Your task to perform on an android device: visit the assistant section in the google photos Image 0: 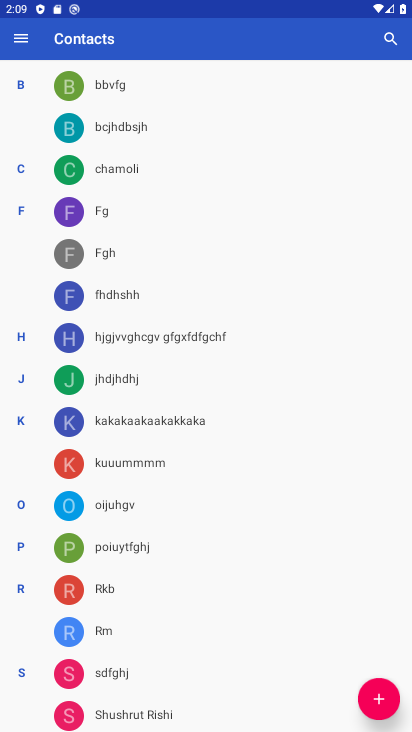
Step 0: press home button
Your task to perform on an android device: visit the assistant section in the google photos Image 1: 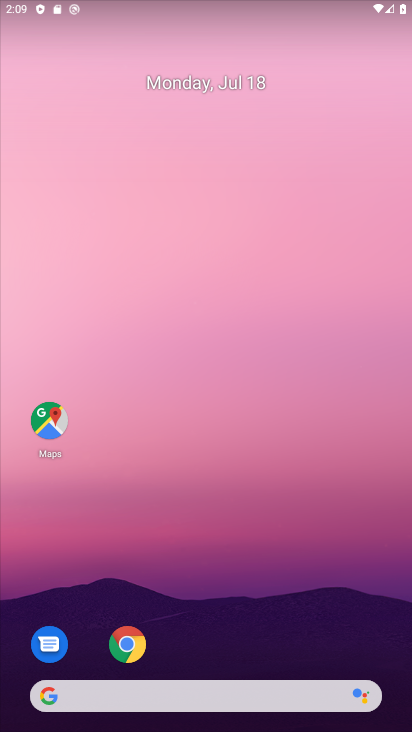
Step 1: drag from (329, 643) to (229, 102)
Your task to perform on an android device: visit the assistant section in the google photos Image 2: 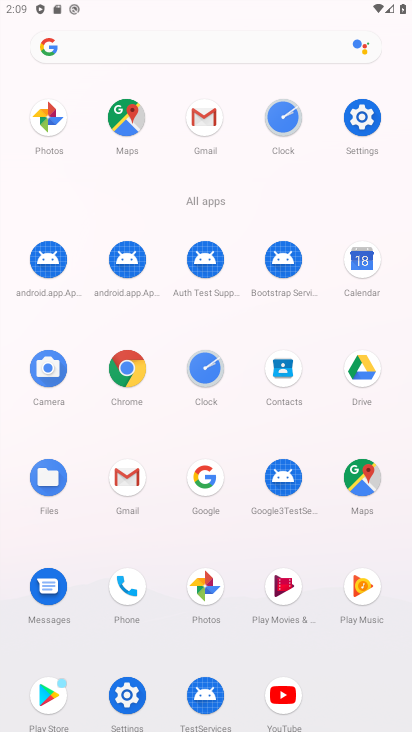
Step 2: click (47, 106)
Your task to perform on an android device: visit the assistant section in the google photos Image 3: 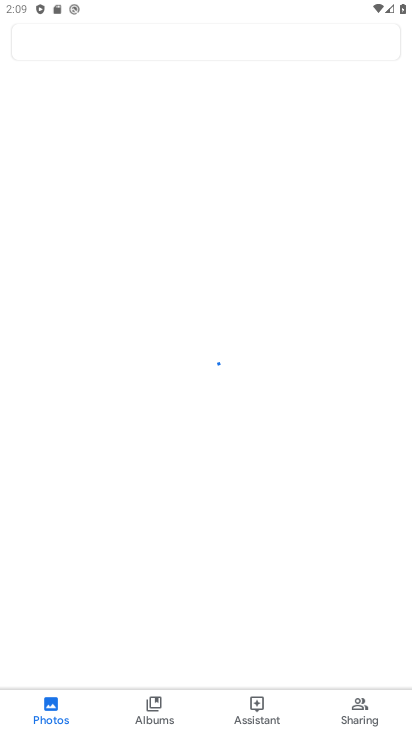
Step 3: click (260, 707)
Your task to perform on an android device: visit the assistant section in the google photos Image 4: 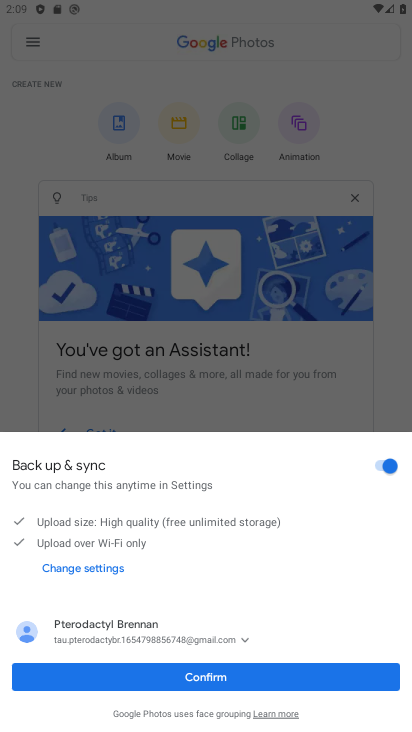
Step 4: click (276, 671)
Your task to perform on an android device: visit the assistant section in the google photos Image 5: 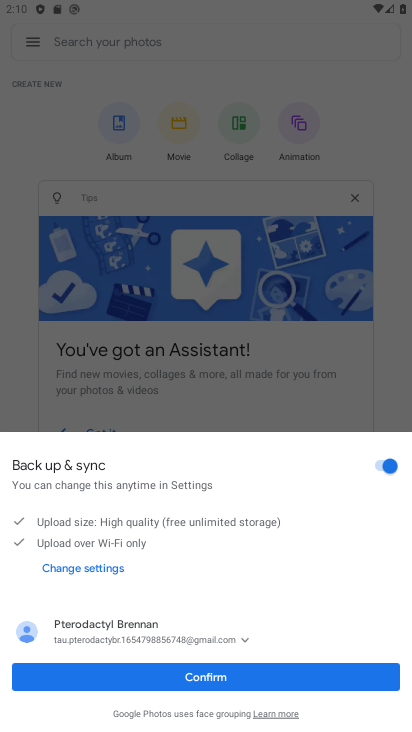
Step 5: click (251, 676)
Your task to perform on an android device: visit the assistant section in the google photos Image 6: 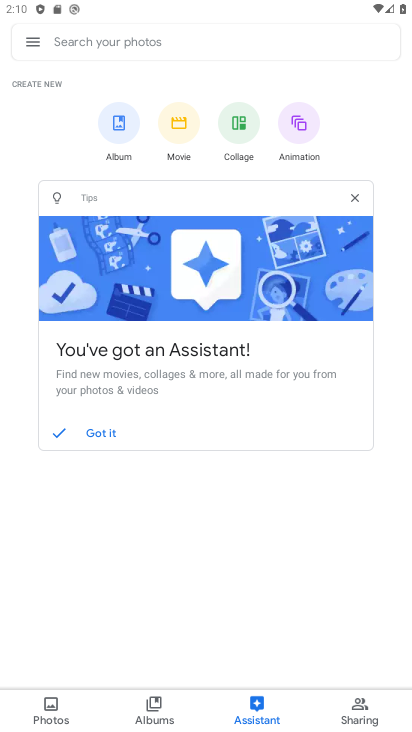
Step 6: task complete